Your task to perform on an android device: Go to network settings Image 0: 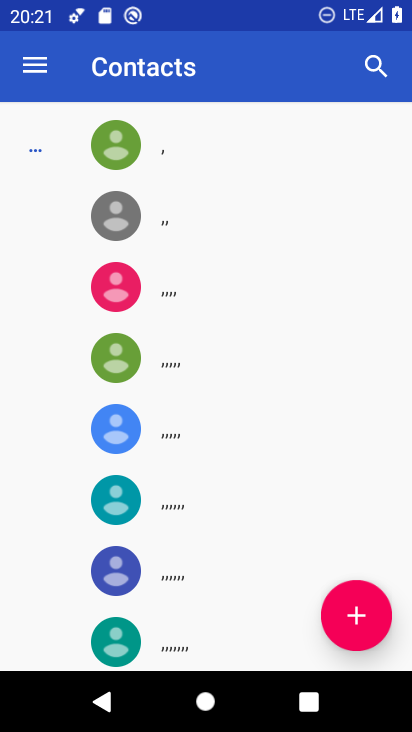
Step 0: press home button
Your task to perform on an android device: Go to network settings Image 1: 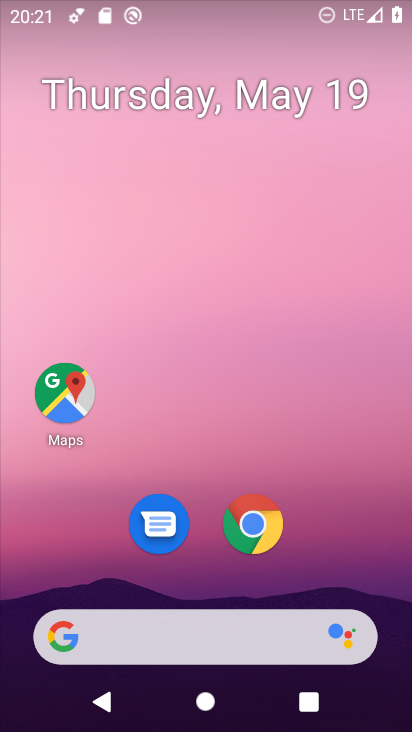
Step 1: drag from (331, 484) to (321, 94)
Your task to perform on an android device: Go to network settings Image 2: 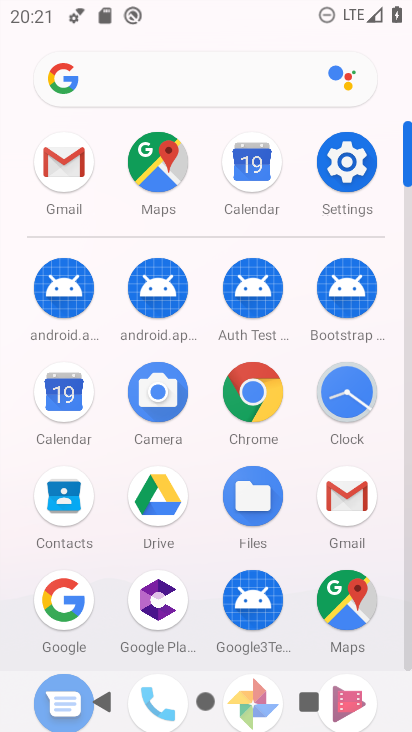
Step 2: click (340, 178)
Your task to perform on an android device: Go to network settings Image 3: 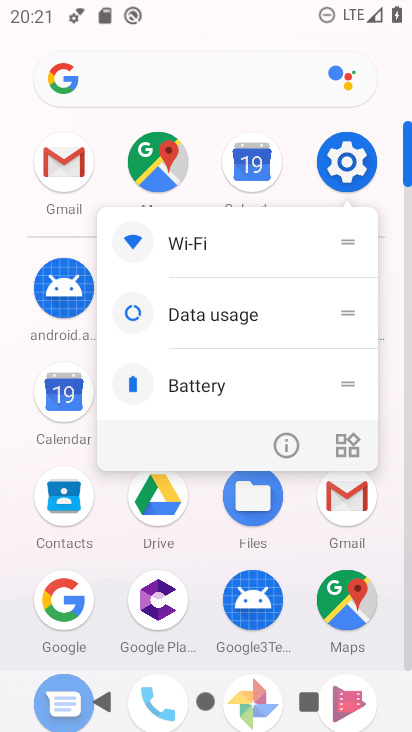
Step 3: click (350, 154)
Your task to perform on an android device: Go to network settings Image 4: 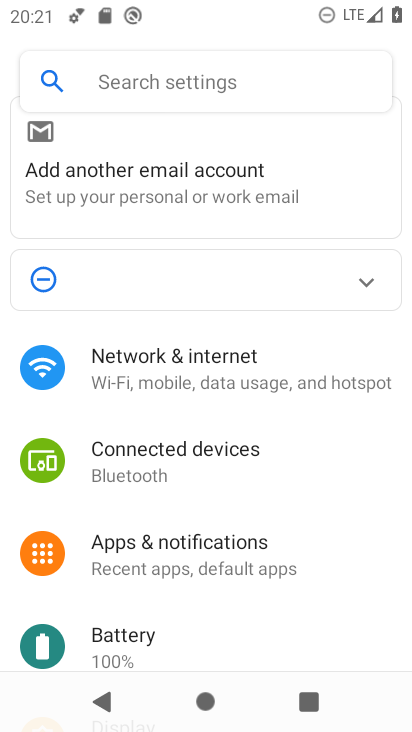
Step 4: click (184, 362)
Your task to perform on an android device: Go to network settings Image 5: 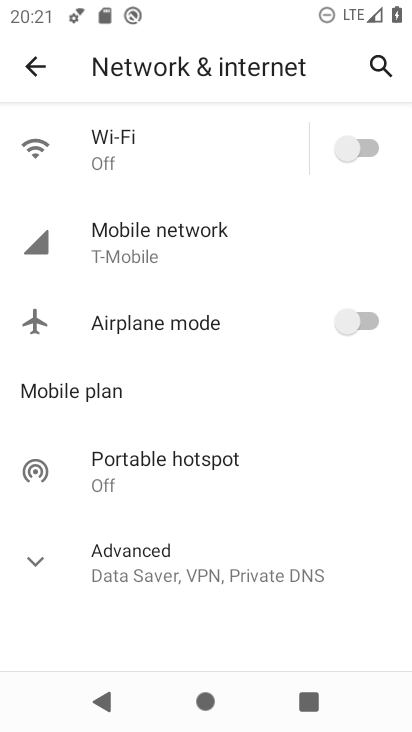
Step 5: task complete